Your task to perform on an android device: turn notification dots off Image 0: 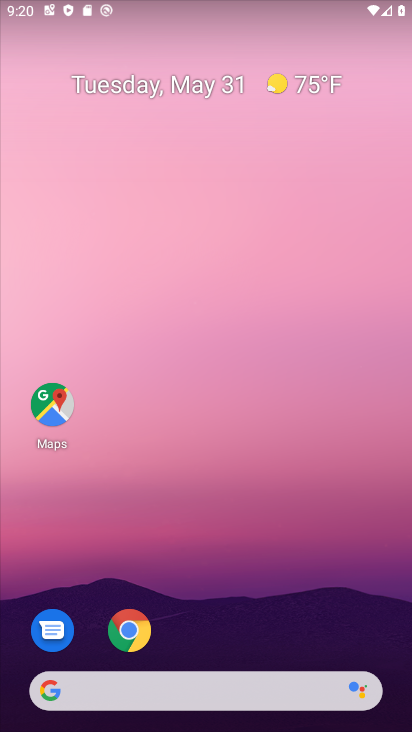
Step 0: drag from (230, 644) to (272, 209)
Your task to perform on an android device: turn notification dots off Image 1: 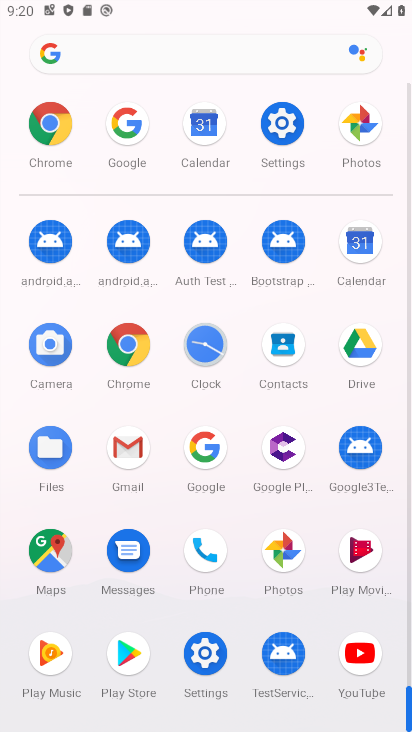
Step 1: click (286, 161)
Your task to perform on an android device: turn notification dots off Image 2: 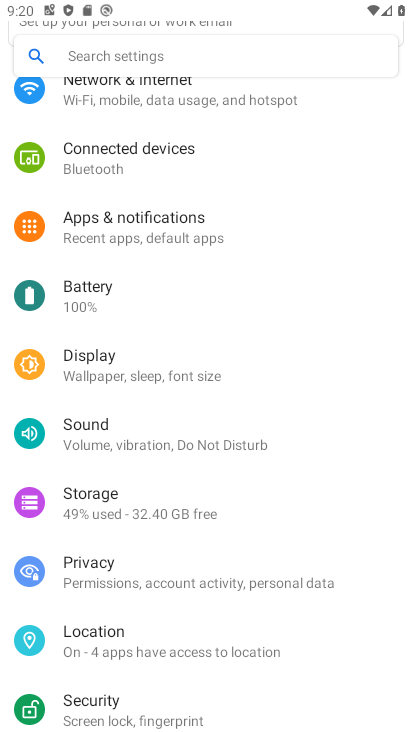
Step 2: click (227, 234)
Your task to perform on an android device: turn notification dots off Image 3: 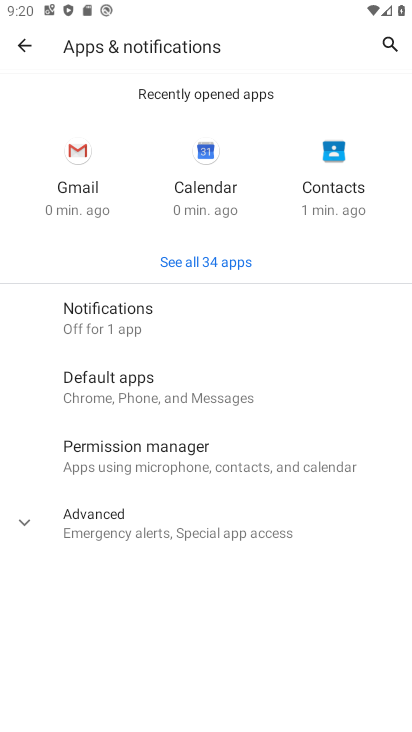
Step 3: click (209, 316)
Your task to perform on an android device: turn notification dots off Image 4: 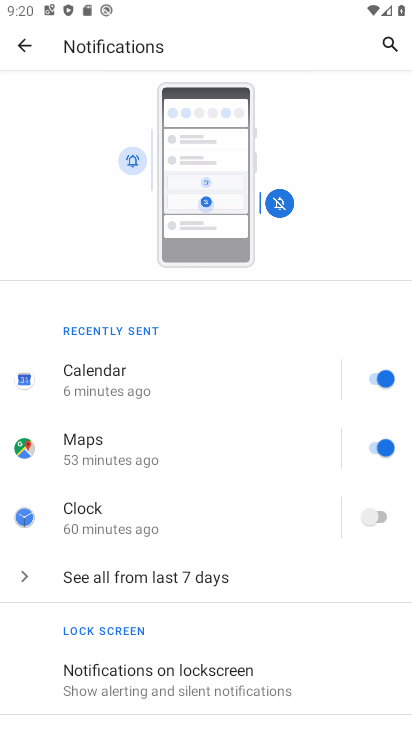
Step 4: drag from (134, 550) to (188, 307)
Your task to perform on an android device: turn notification dots off Image 5: 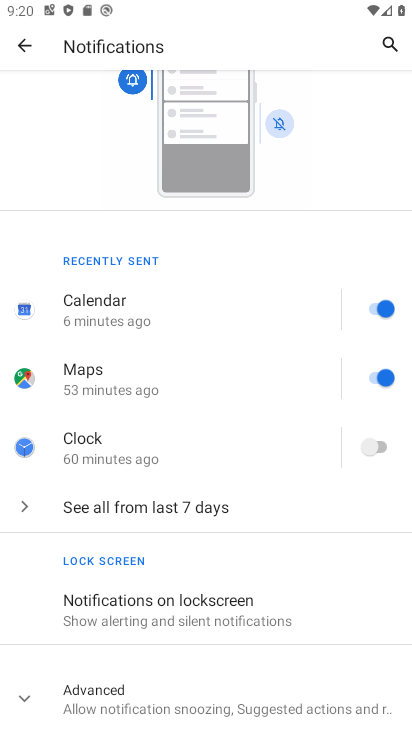
Step 5: click (184, 696)
Your task to perform on an android device: turn notification dots off Image 6: 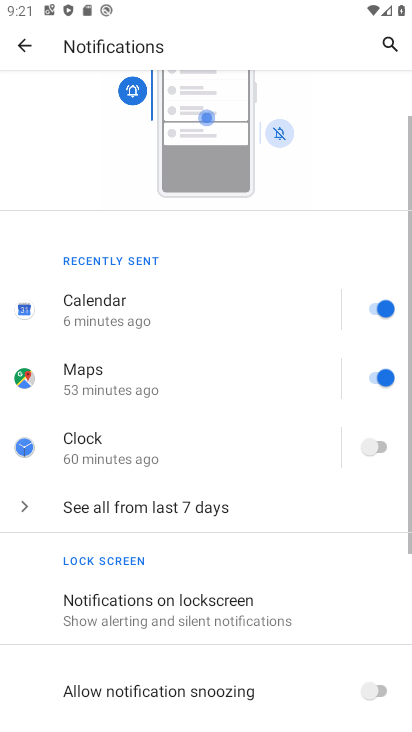
Step 6: task complete